Your task to perform on an android device: Open Google Image 0: 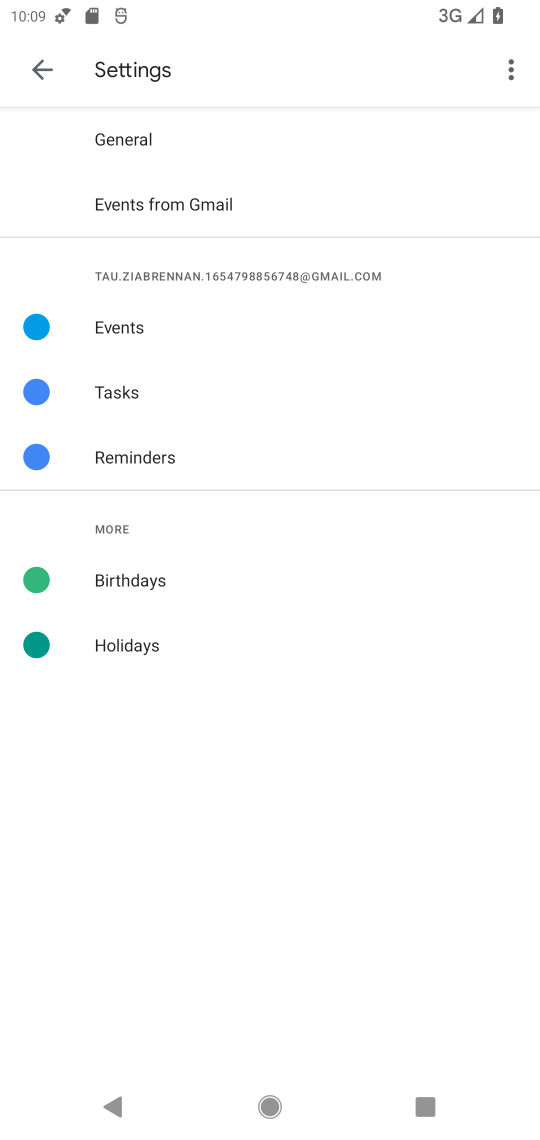
Step 0: press home button
Your task to perform on an android device: Open Google Image 1: 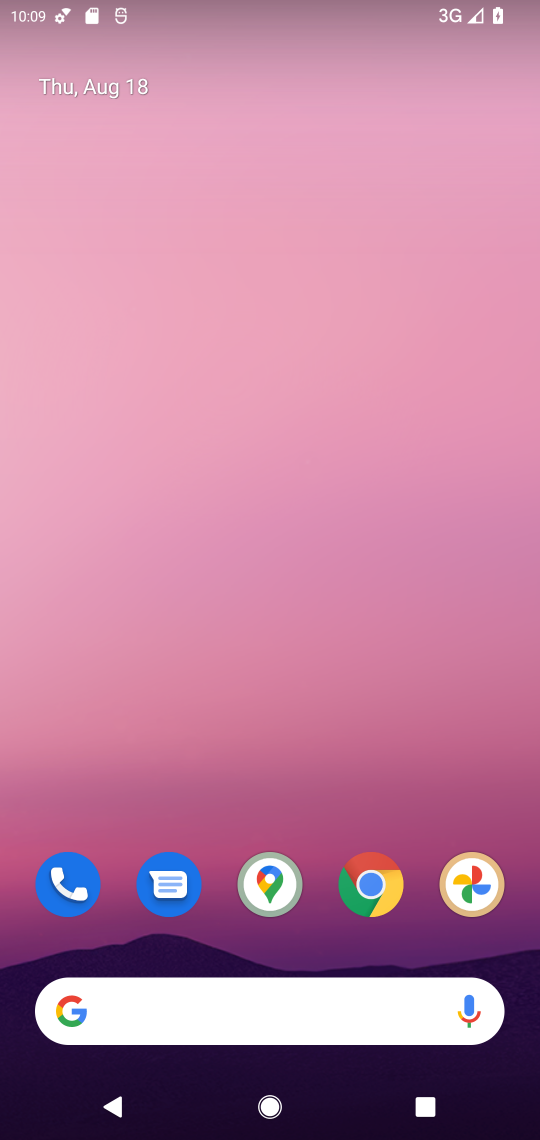
Step 1: click (261, 1010)
Your task to perform on an android device: Open Google Image 2: 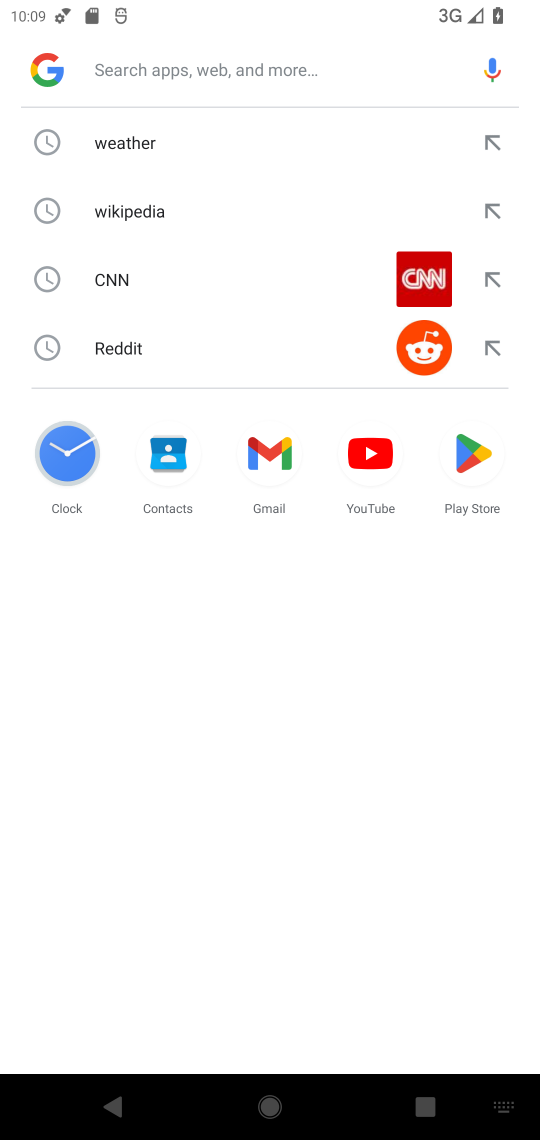
Step 2: task complete